Your task to perform on an android device: Go to calendar. Show me events next week Image 0: 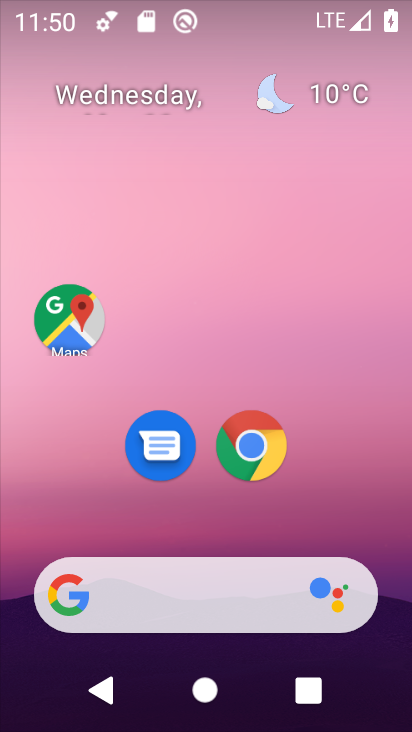
Step 0: drag from (164, 490) to (248, 32)
Your task to perform on an android device: Go to calendar. Show me events next week Image 1: 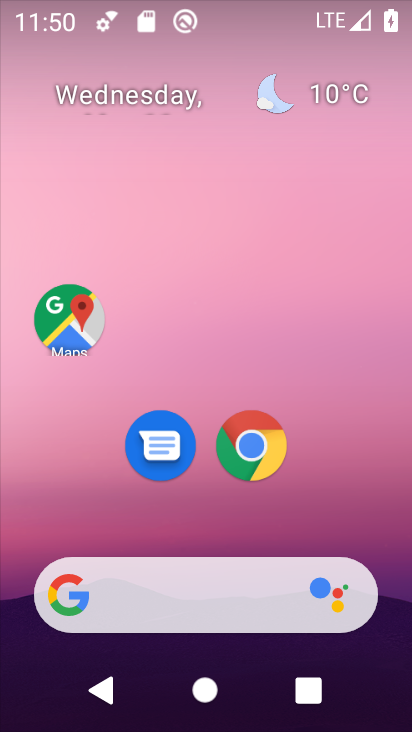
Step 1: drag from (205, 479) to (231, 76)
Your task to perform on an android device: Go to calendar. Show me events next week Image 2: 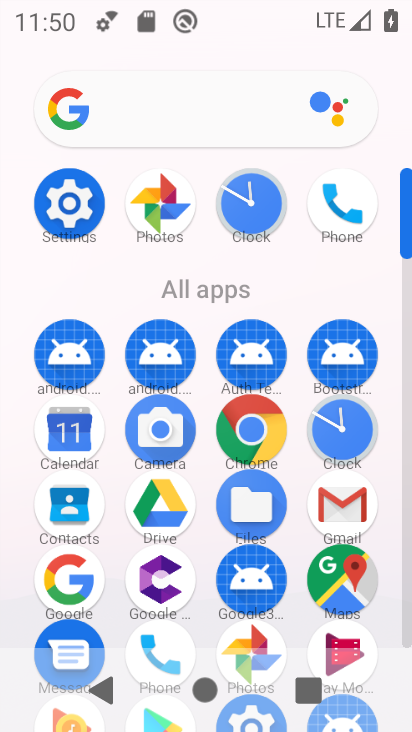
Step 2: click (63, 439)
Your task to perform on an android device: Go to calendar. Show me events next week Image 3: 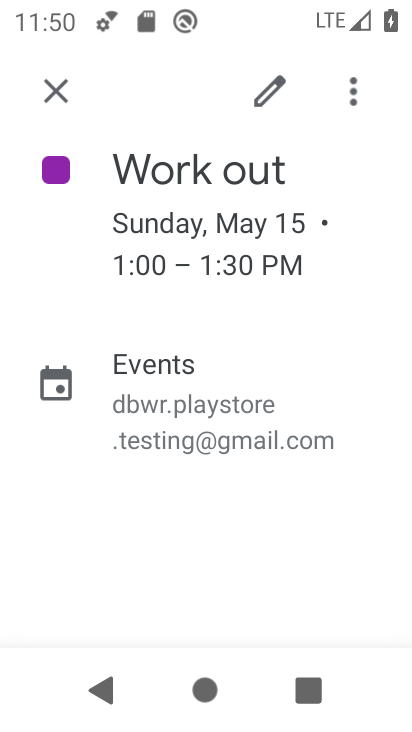
Step 3: click (60, 91)
Your task to perform on an android device: Go to calendar. Show me events next week Image 4: 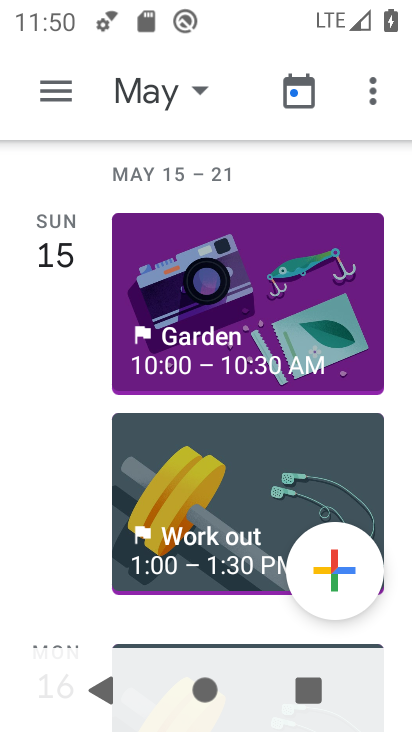
Step 4: drag from (187, 569) to (243, 123)
Your task to perform on an android device: Go to calendar. Show me events next week Image 5: 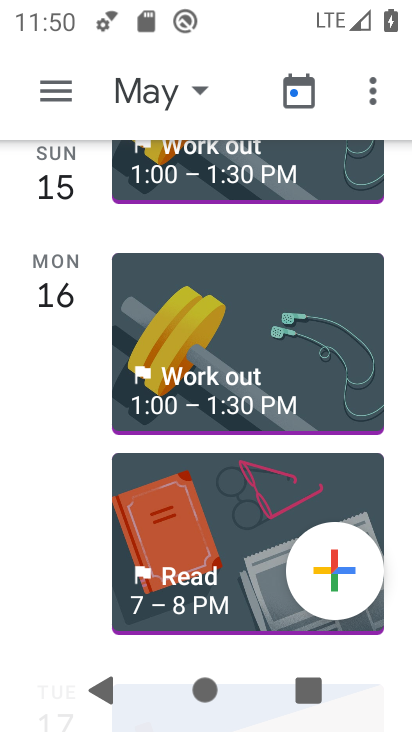
Step 5: drag from (188, 586) to (234, 138)
Your task to perform on an android device: Go to calendar. Show me events next week Image 6: 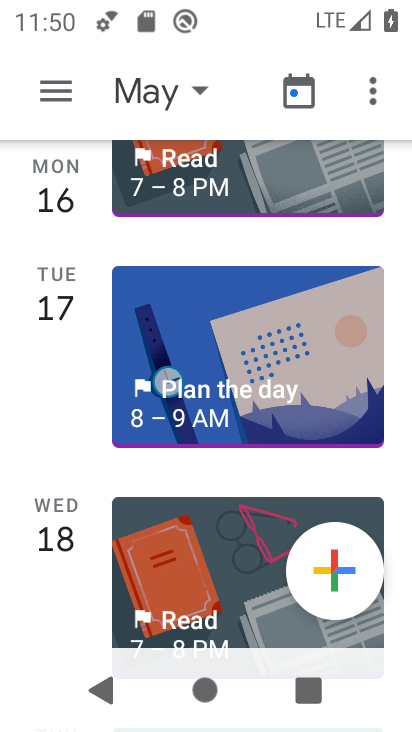
Step 6: drag from (219, 546) to (249, 163)
Your task to perform on an android device: Go to calendar. Show me events next week Image 7: 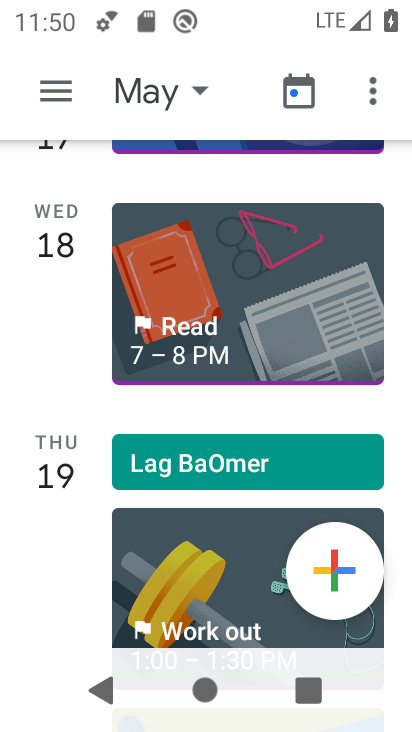
Step 7: drag from (166, 595) to (225, 166)
Your task to perform on an android device: Go to calendar. Show me events next week Image 8: 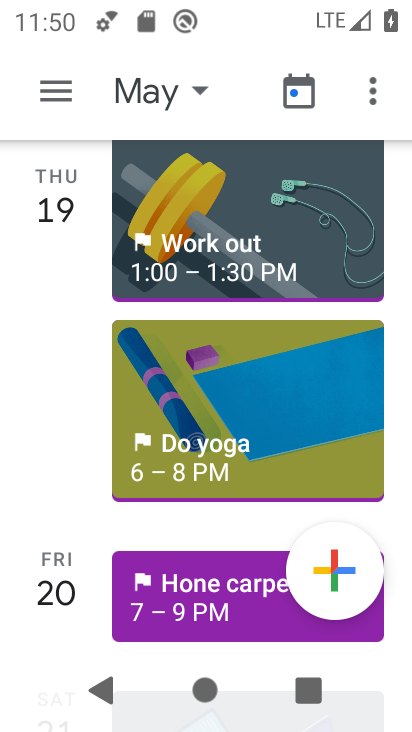
Step 8: click (210, 412)
Your task to perform on an android device: Go to calendar. Show me events next week Image 9: 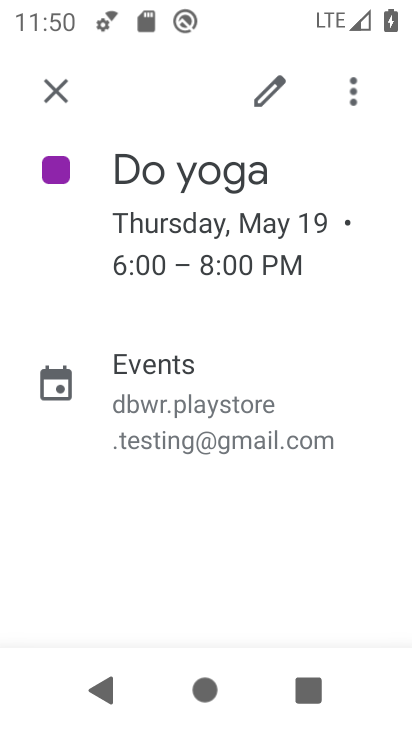
Step 9: task complete